Your task to perform on an android device: uninstall "Google Docs" Image 0: 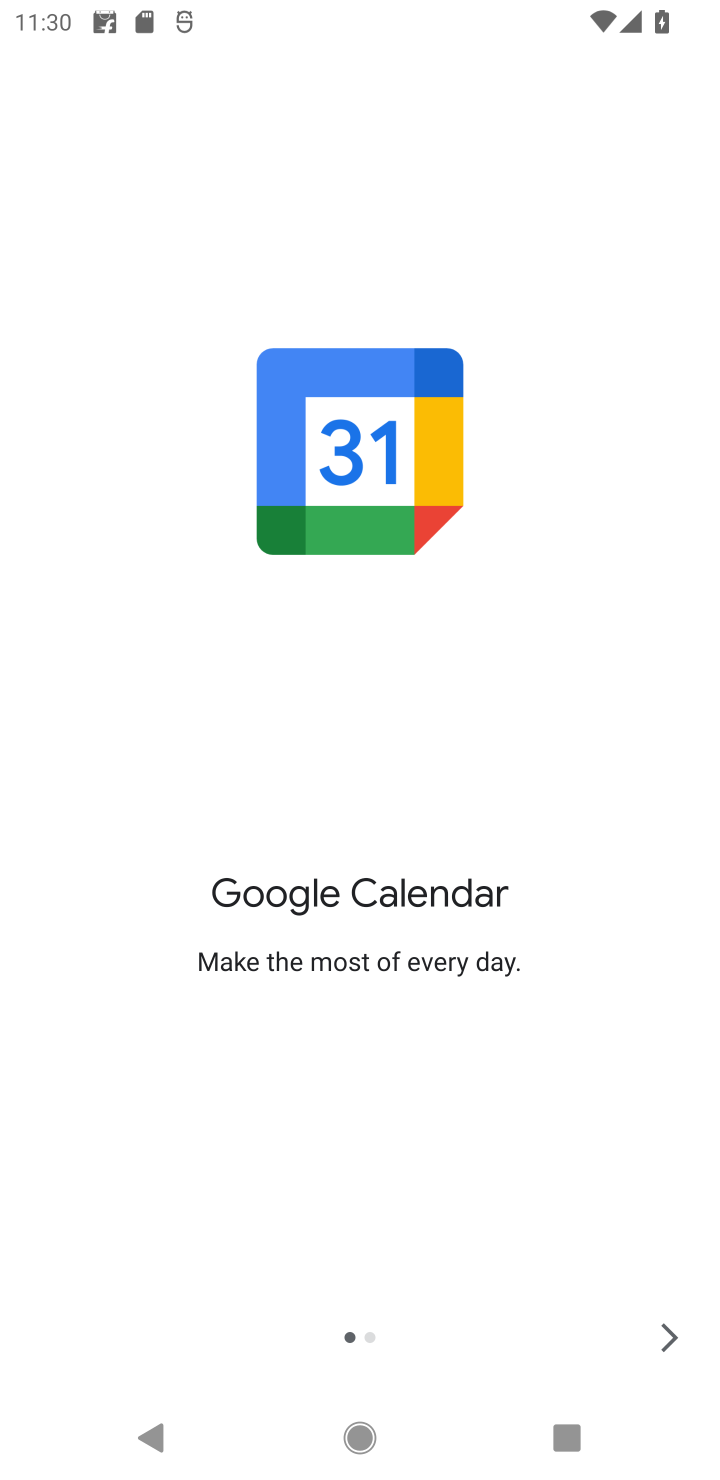
Step 0: press home button
Your task to perform on an android device: uninstall "Google Docs" Image 1: 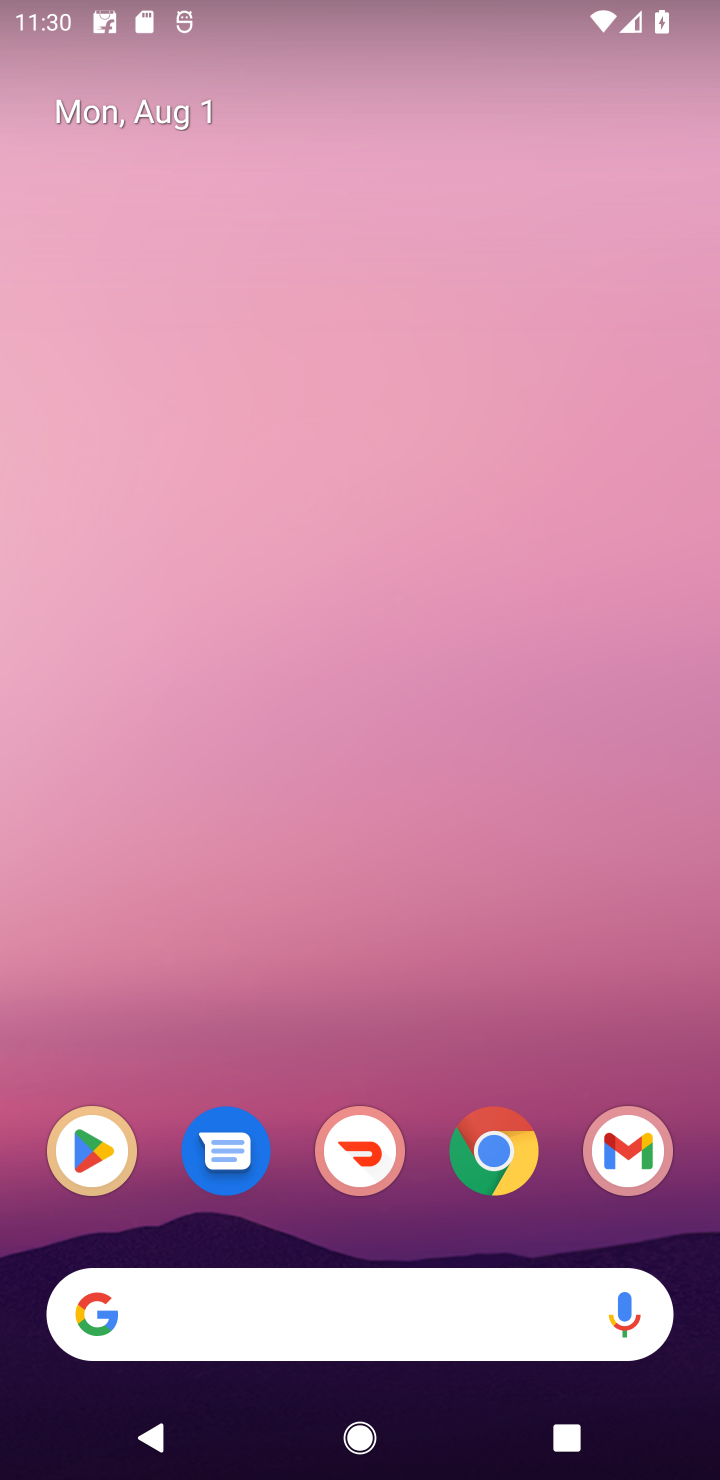
Step 1: click (89, 1159)
Your task to perform on an android device: uninstall "Google Docs" Image 2: 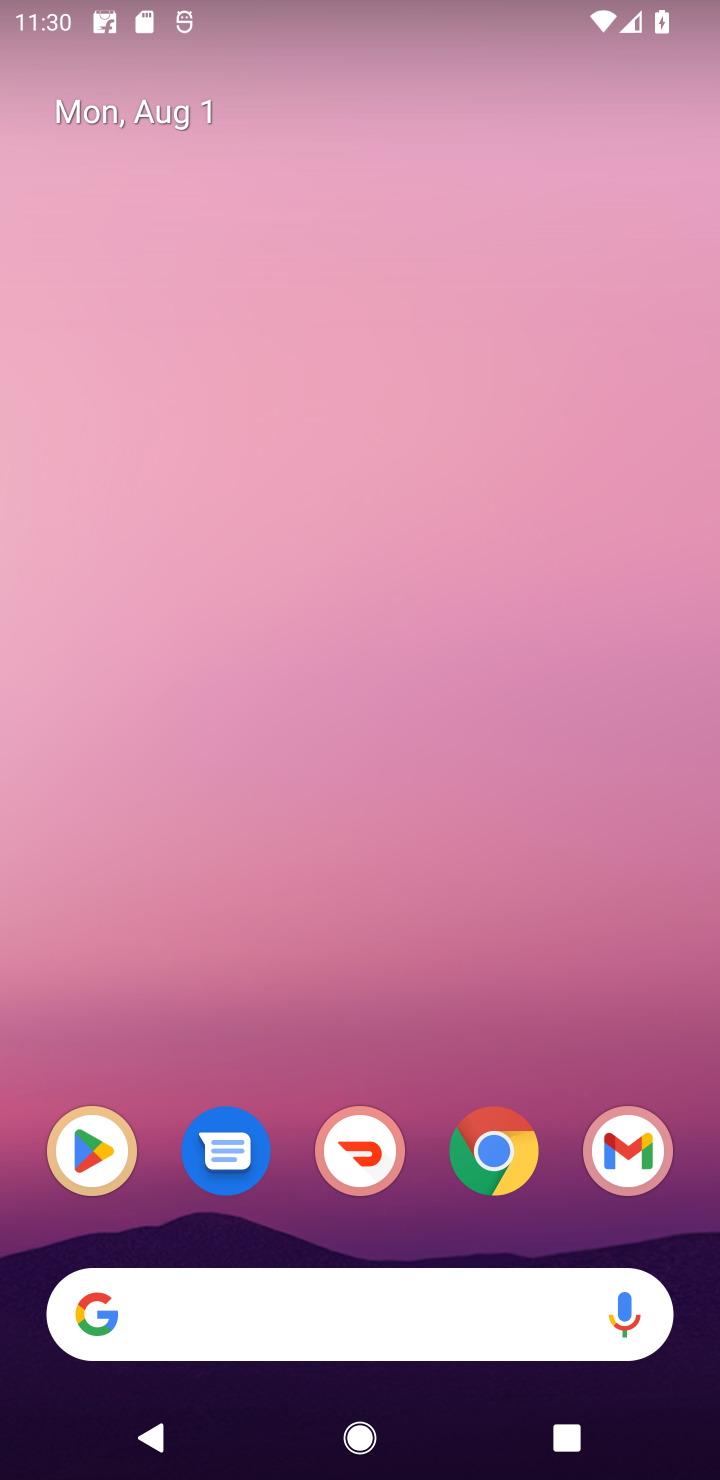
Step 2: click (81, 1159)
Your task to perform on an android device: uninstall "Google Docs" Image 3: 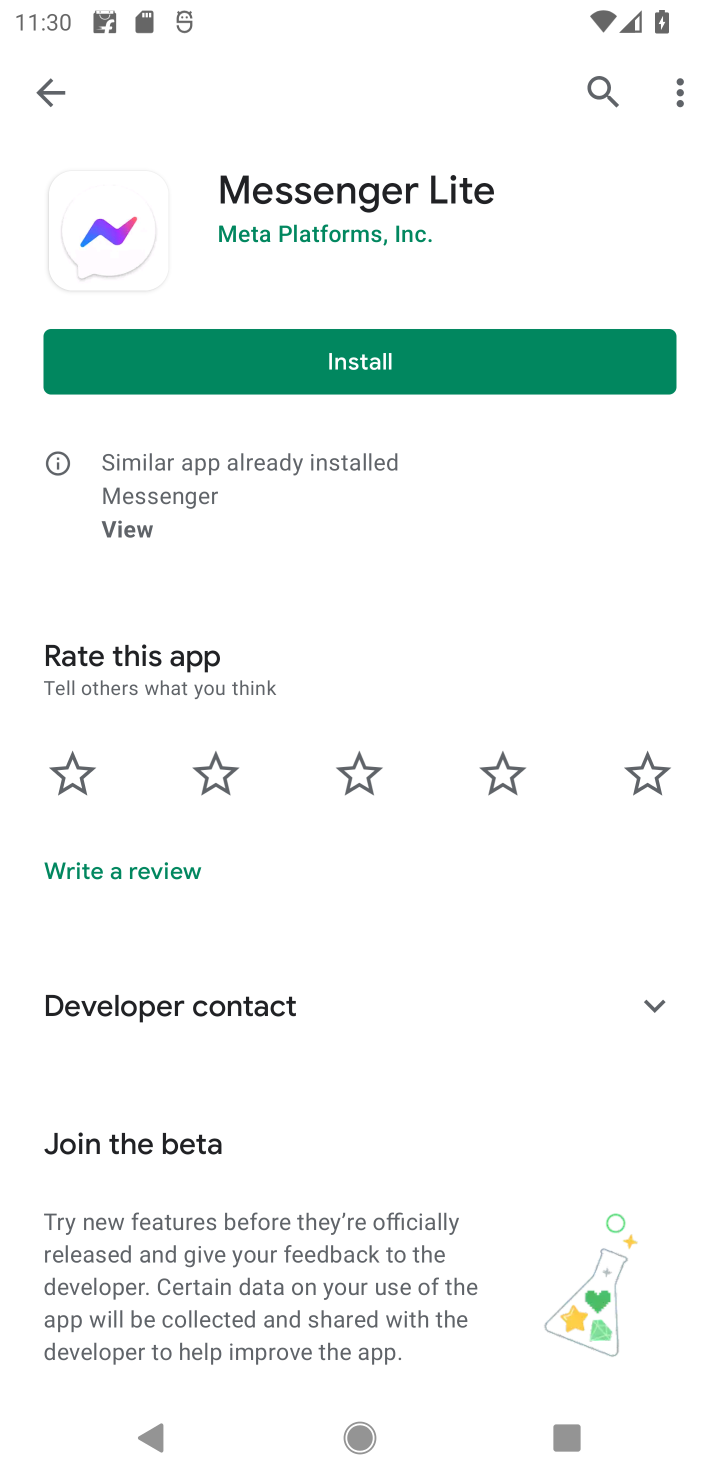
Step 3: click (597, 105)
Your task to perform on an android device: uninstall "Google Docs" Image 4: 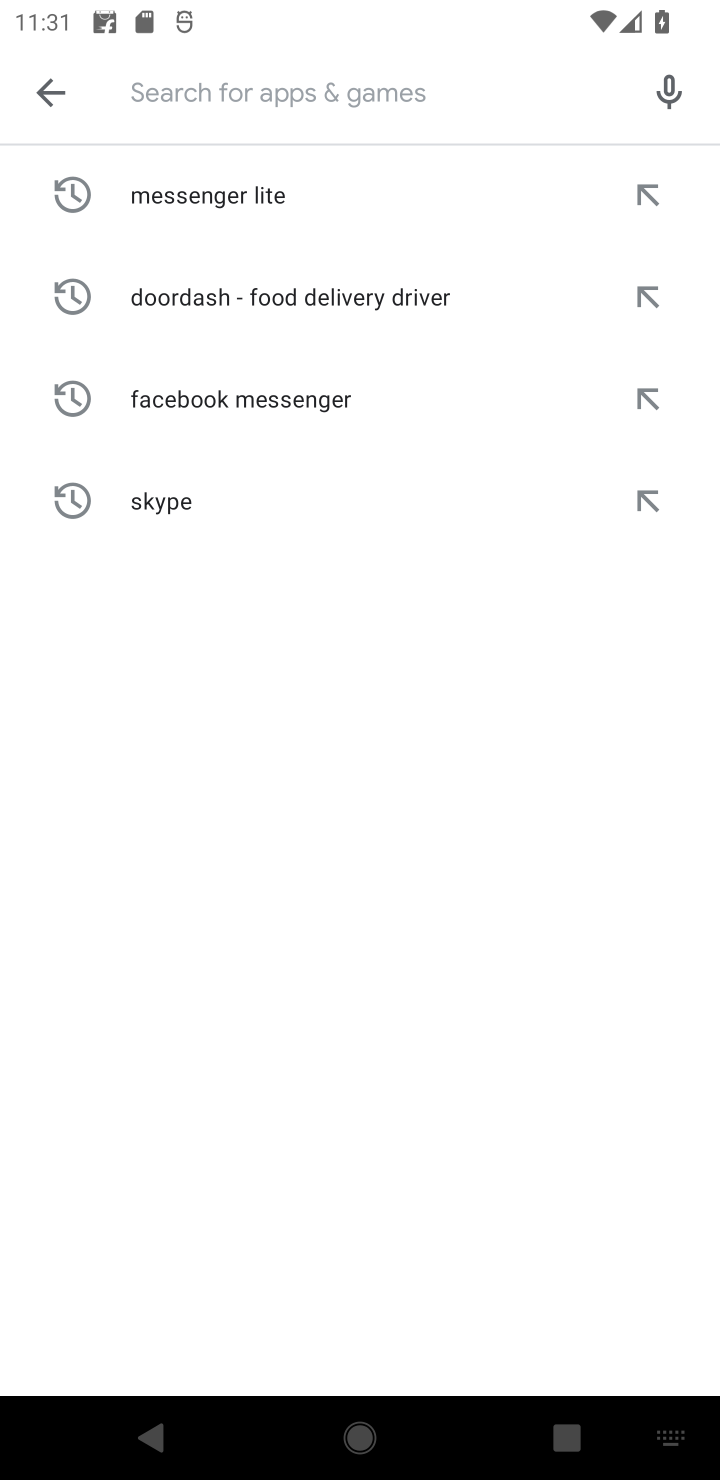
Step 4: type "Google Docs"
Your task to perform on an android device: uninstall "Google Docs" Image 5: 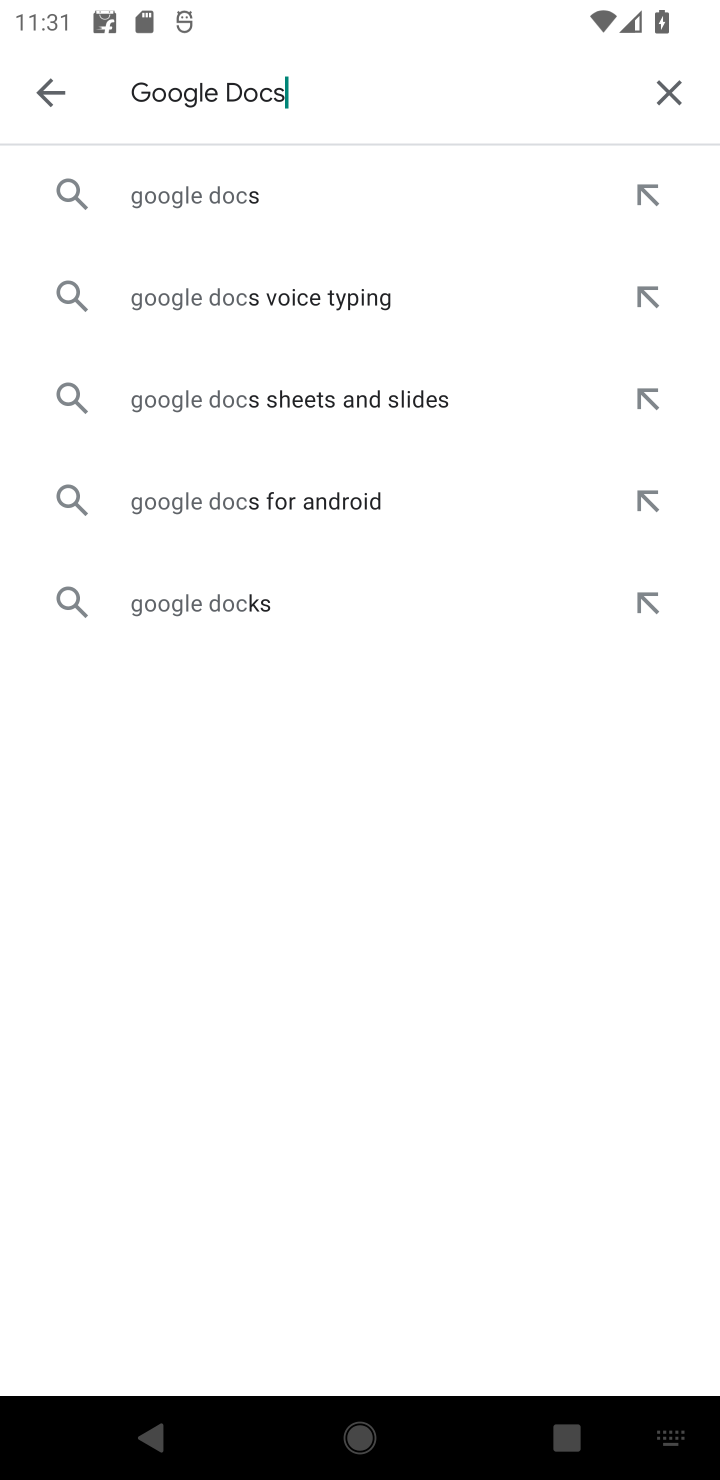
Step 5: type ""
Your task to perform on an android device: uninstall "Google Docs" Image 6: 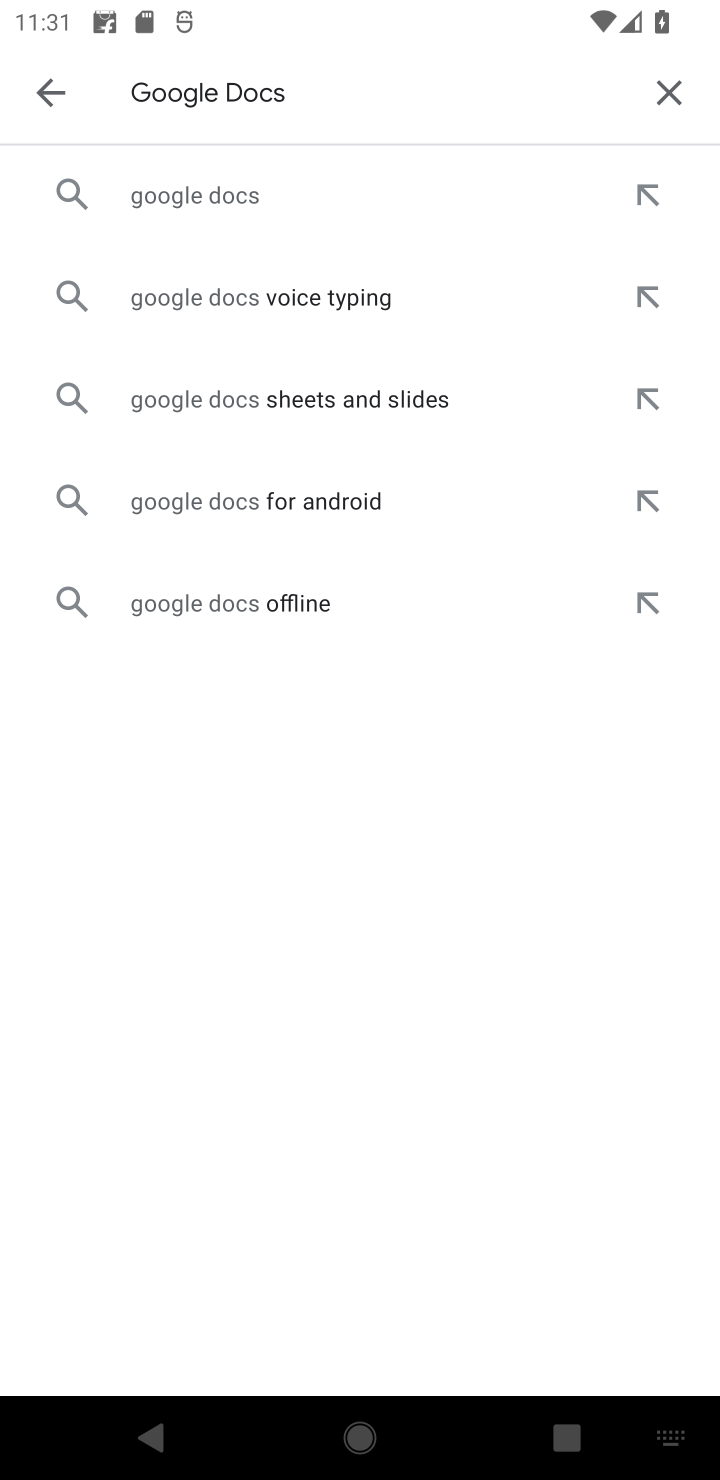
Step 6: click (210, 208)
Your task to perform on an android device: uninstall "Google Docs" Image 7: 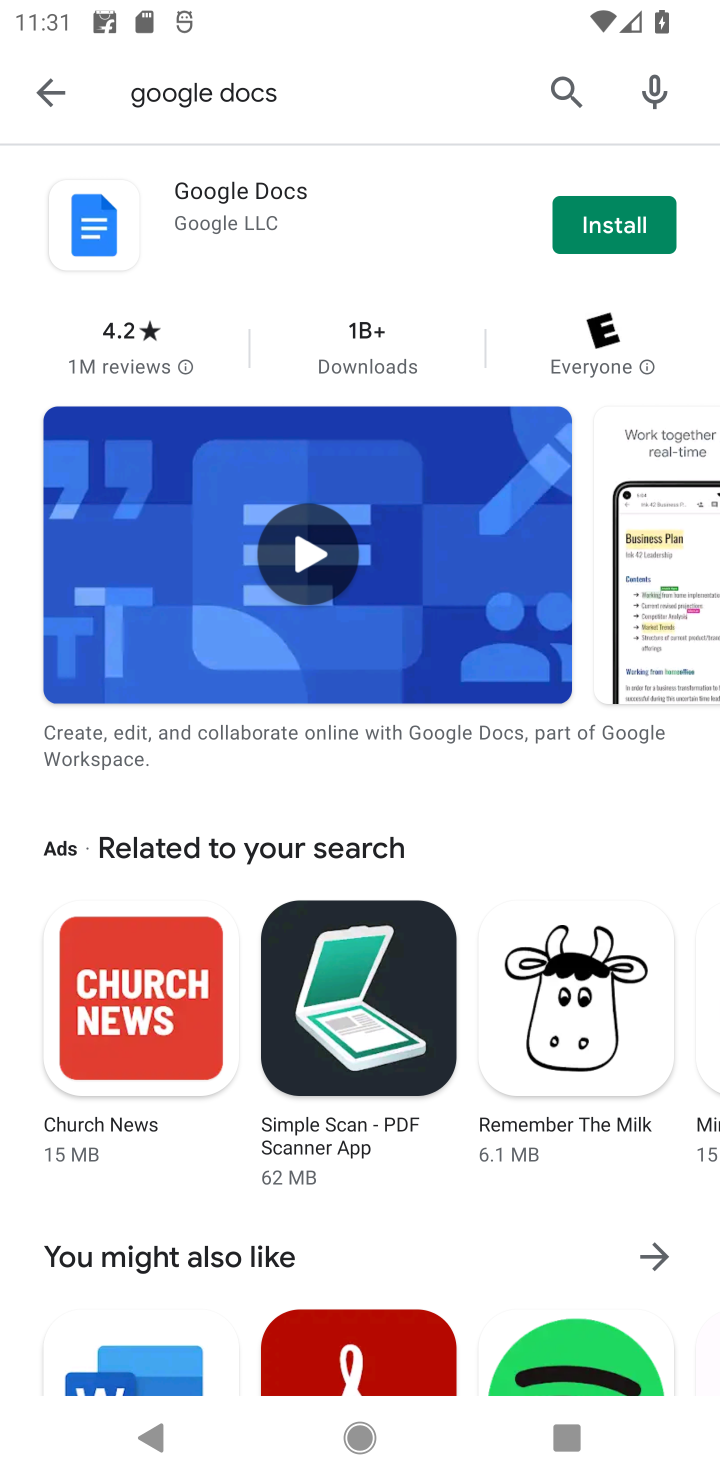
Step 7: click (321, 240)
Your task to perform on an android device: uninstall "Google Docs" Image 8: 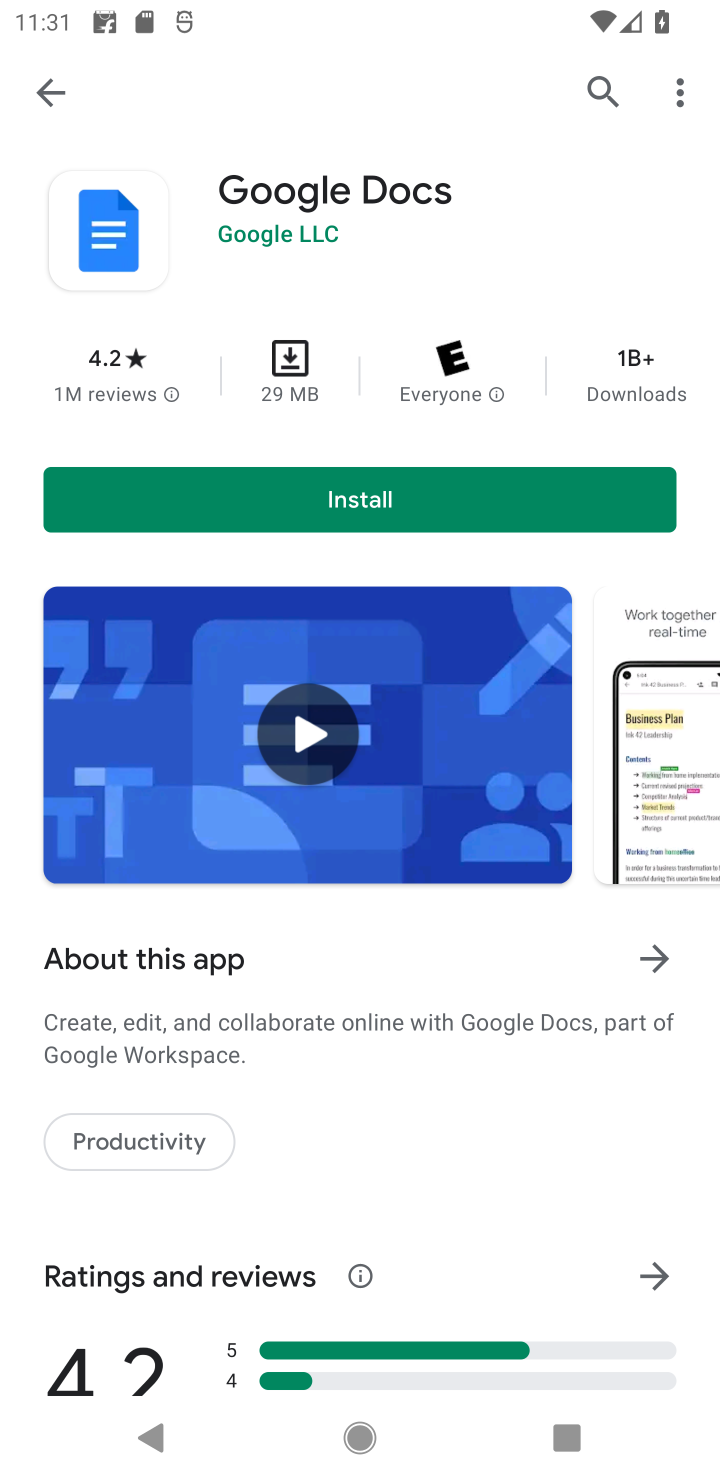
Step 8: task complete